Your task to perform on an android device: Check my email inbox Image 0: 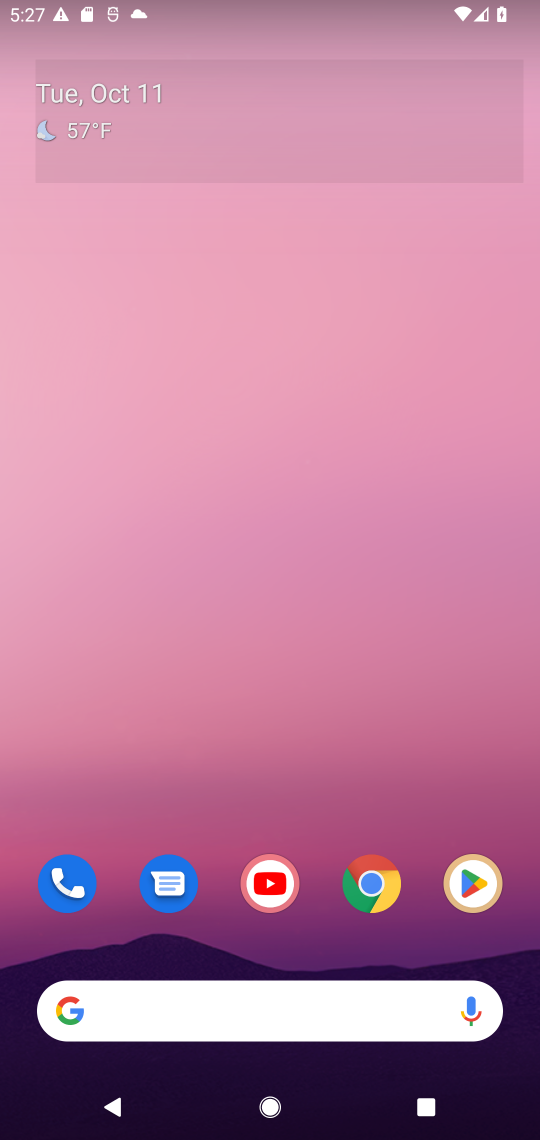
Step 0: drag from (417, 936) to (446, 361)
Your task to perform on an android device: Check my email inbox Image 1: 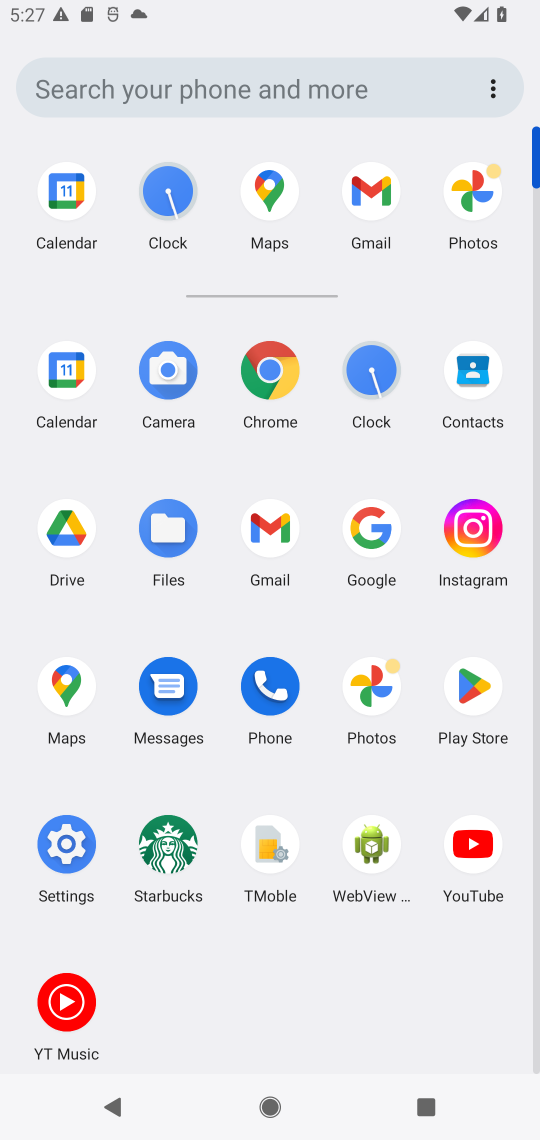
Step 1: click (385, 192)
Your task to perform on an android device: Check my email inbox Image 2: 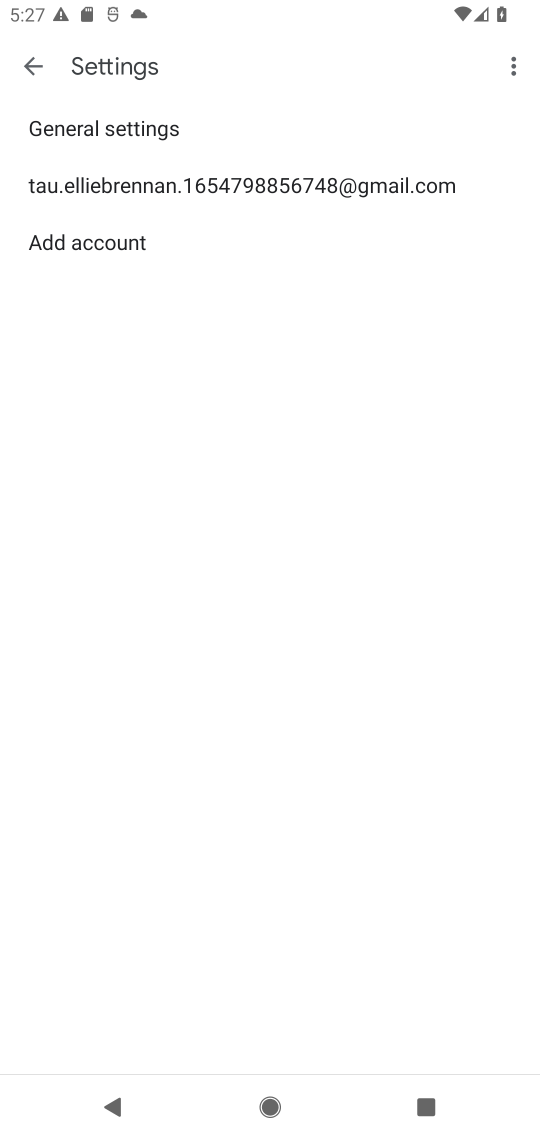
Step 2: click (34, 60)
Your task to perform on an android device: Check my email inbox Image 3: 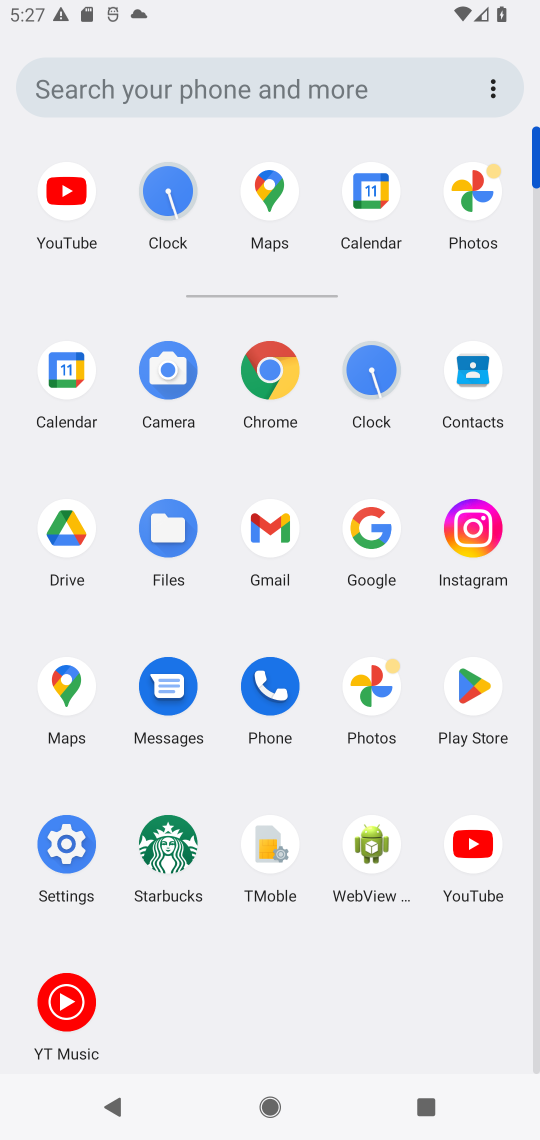
Step 3: click (258, 527)
Your task to perform on an android device: Check my email inbox Image 4: 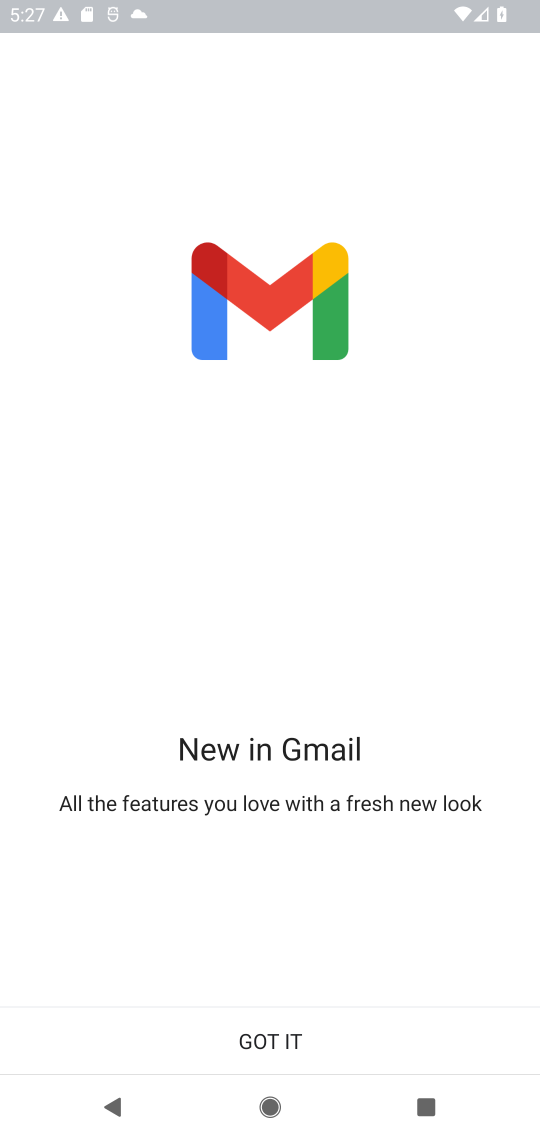
Step 4: click (257, 1033)
Your task to perform on an android device: Check my email inbox Image 5: 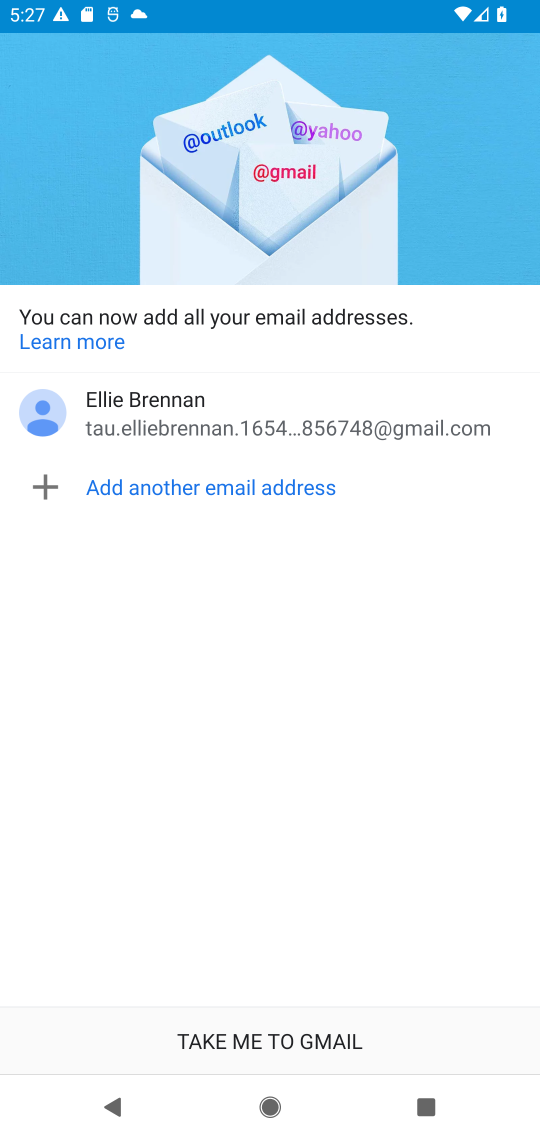
Step 5: click (257, 1033)
Your task to perform on an android device: Check my email inbox Image 6: 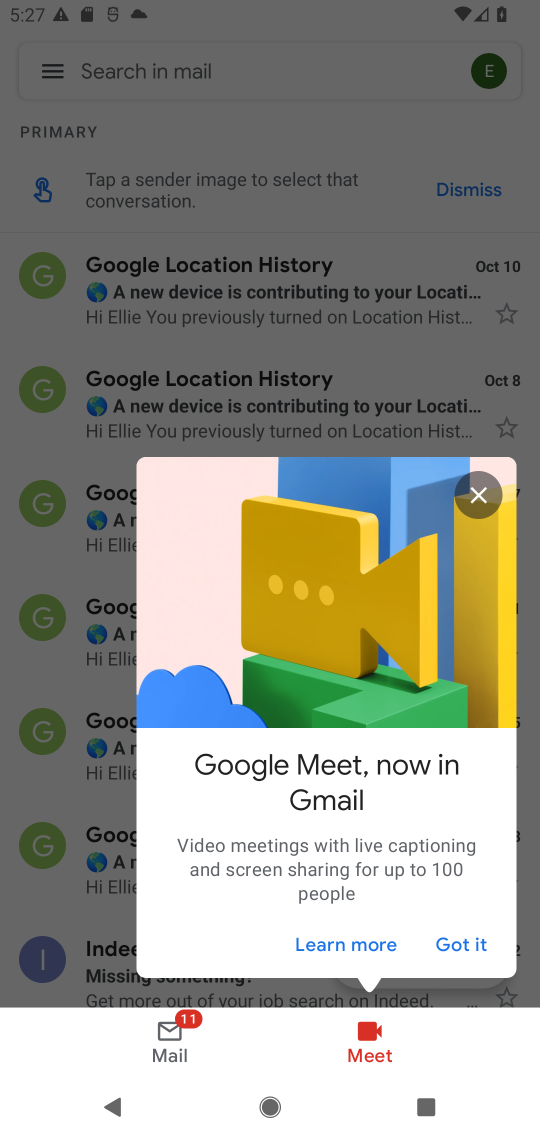
Step 6: click (474, 494)
Your task to perform on an android device: Check my email inbox Image 7: 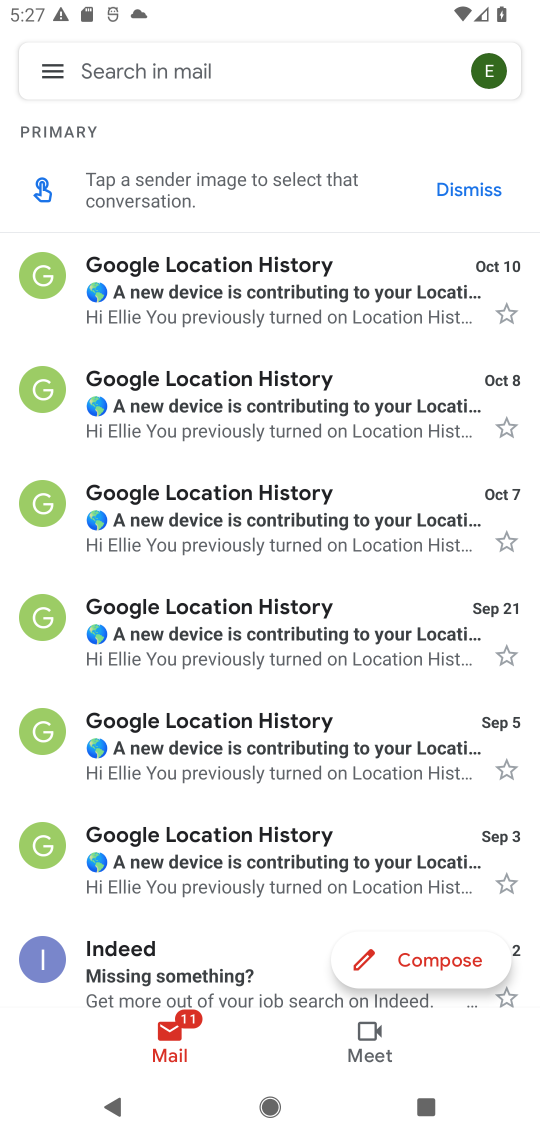
Step 7: task complete